Your task to perform on an android device: install app "Google Pay: Save, Pay, Manage" Image 0: 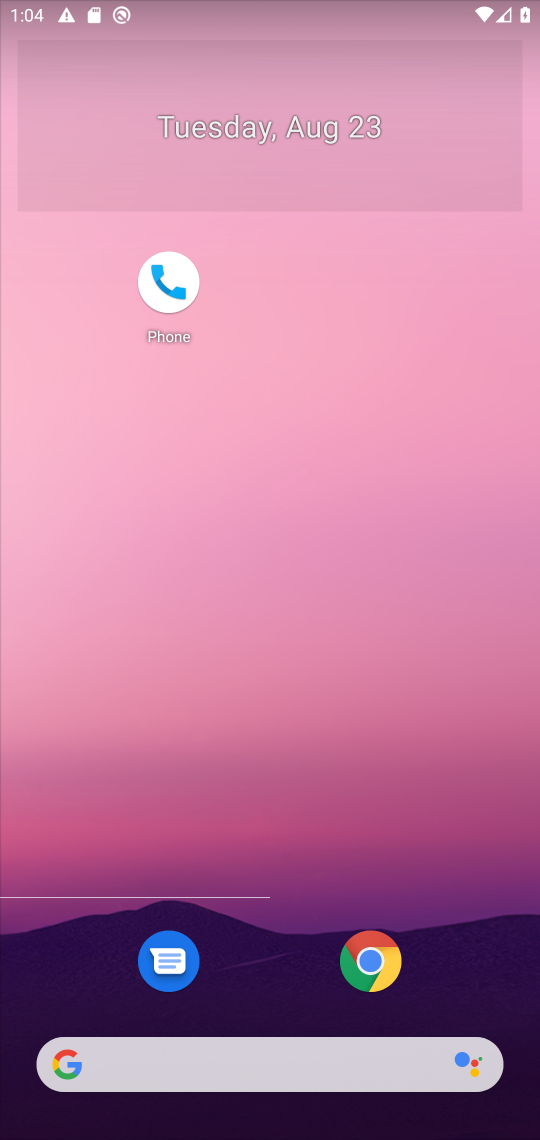
Step 0: drag from (226, 1011) to (164, 7)
Your task to perform on an android device: install app "Google Pay: Save, Pay, Manage" Image 1: 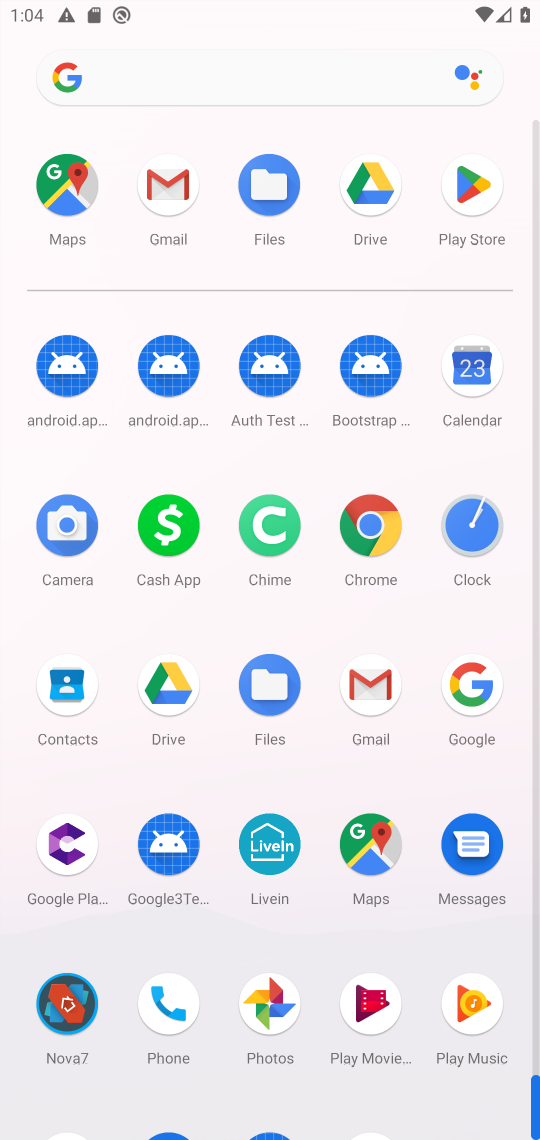
Step 1: click (452, 202)
Your task to perform on an android device: install app "Google Pay: Save, Pay, Manage" Image 2: 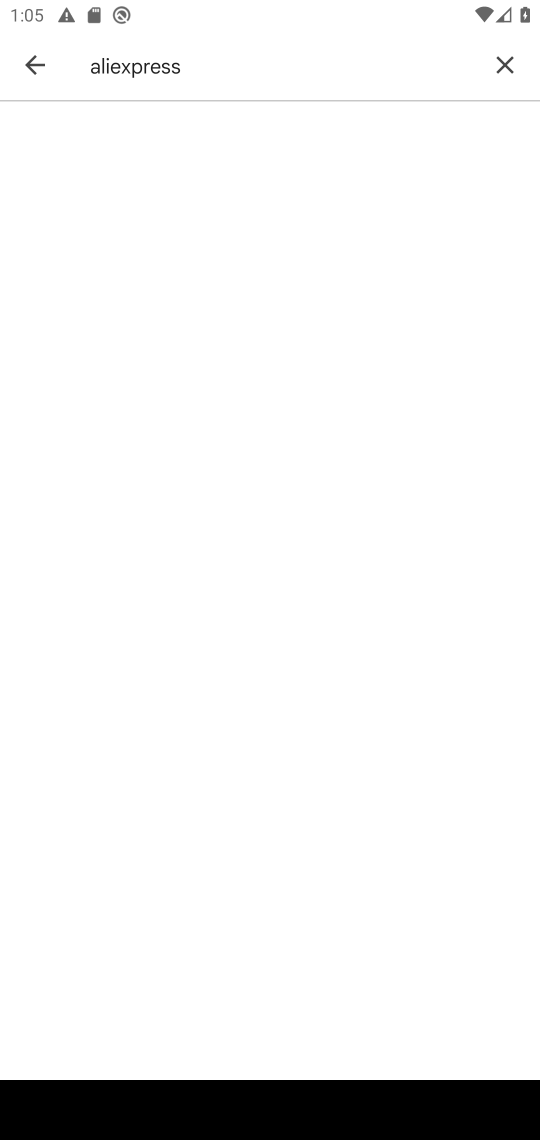
Step 2: task complete